Your task to perform on an android device: Open Chrome and go to the settings page Image 0: 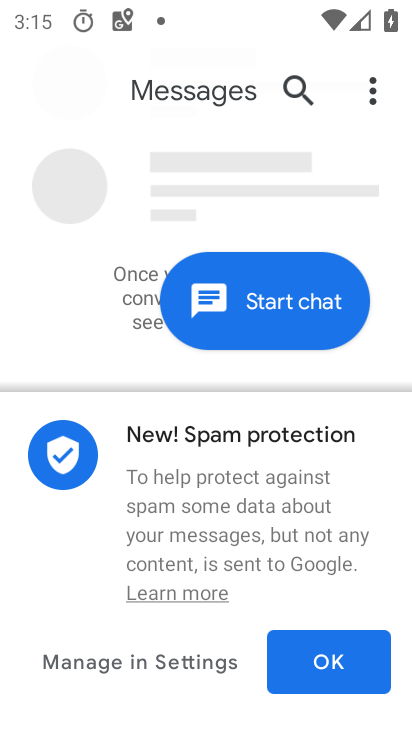
Step 0: press home button
Your task to perform on an android device: Open Chrome and go to the settings page Image 1: 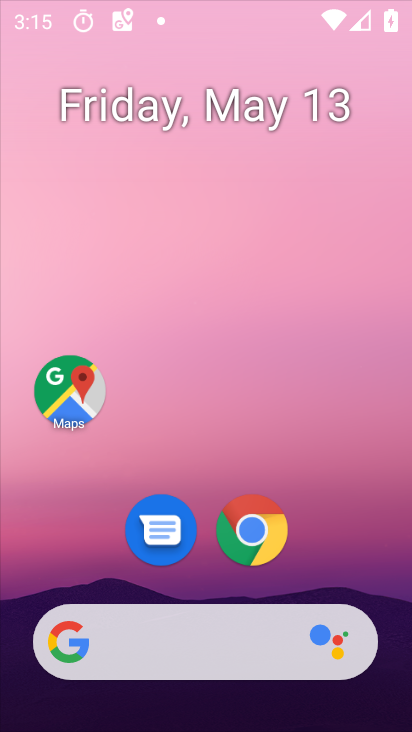
Step 1: drag from (329, 598) to (373, 85)
Your task to perform on an android device: Open Chrome and go to the settings page Image 2: 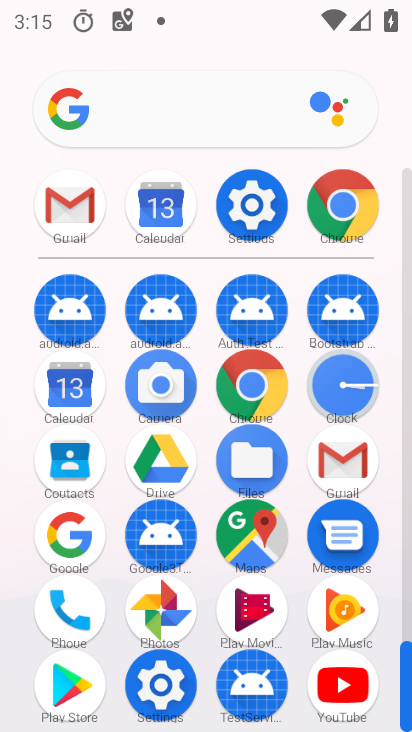
Step 2: click (316, 201)
Your task to perform on an android device: Open Chrome and go to the settings page Image 3: 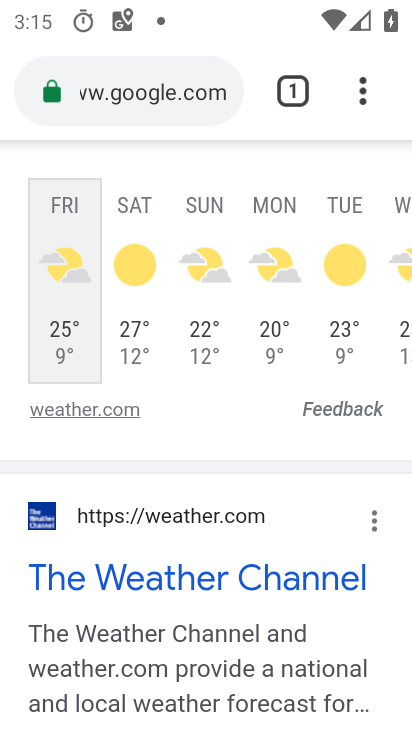
Step 3: click (363, 77)
Your task to perform on an android device: Open Chrome and go to the settings page Image 4: 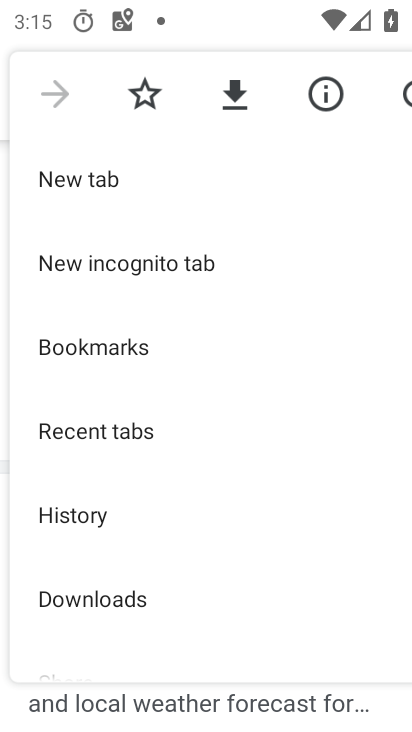
Step 4: drag from (223, 478) to (315, 20)
Your task to perform on an android device: Open Chrome and go to the settings page Image 5: 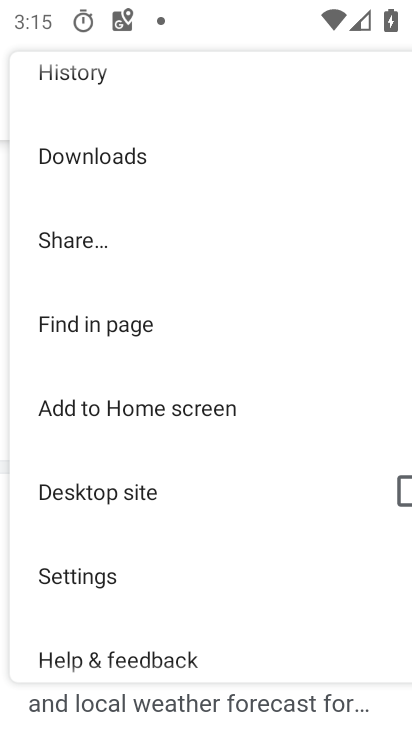
Step 5: click (111, 561)
Your task to perform on an android device: Open Chrome and go to the settings page Image 6: 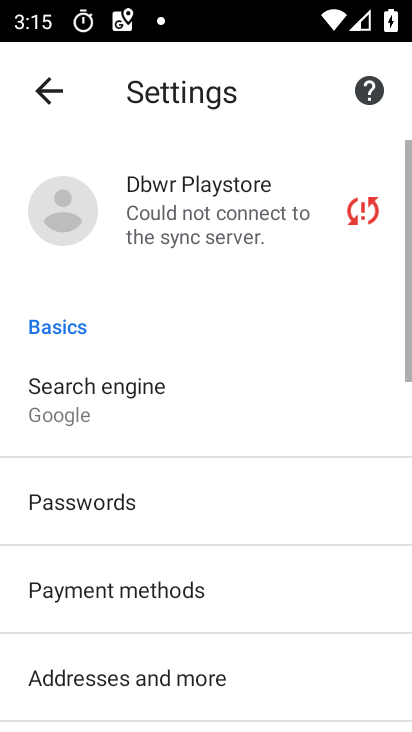
Step 6: task complete